Your task to perform on an android device: Open battery settings Image 0: 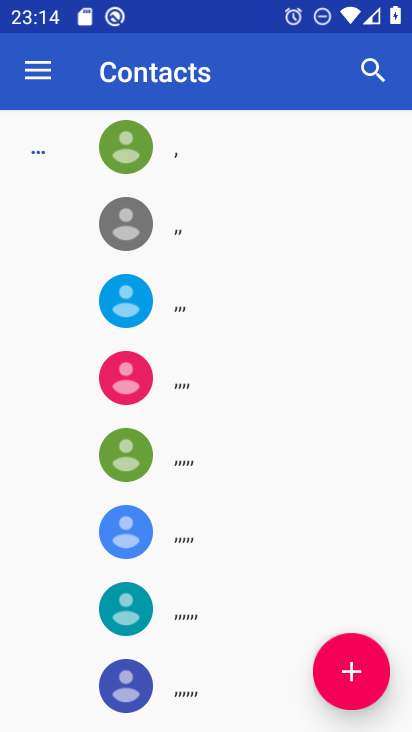
Step 0: press home button
Your task to perform on an android device: Open battery settings Image 1: 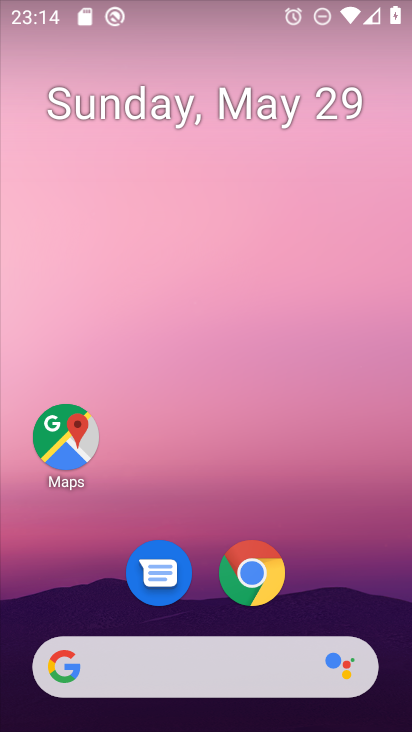
Step 1: drag from (247, 500) to (266, 8)
Your task to perform on an android device: Open battery settings Image 2: 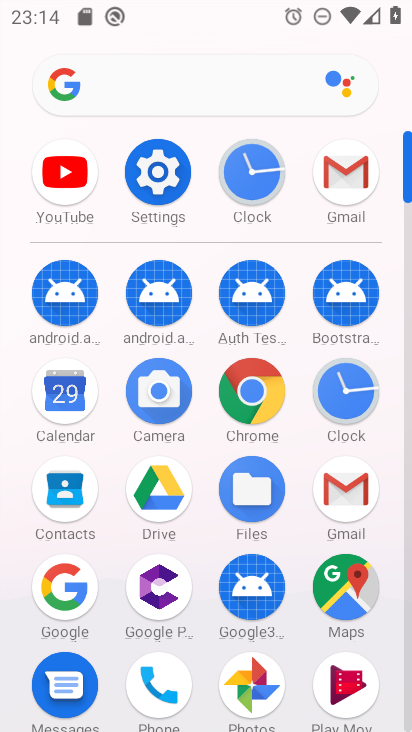
Step 2: click (164, 177)
Your task to perform on an android device: Open battery settings Image 3: 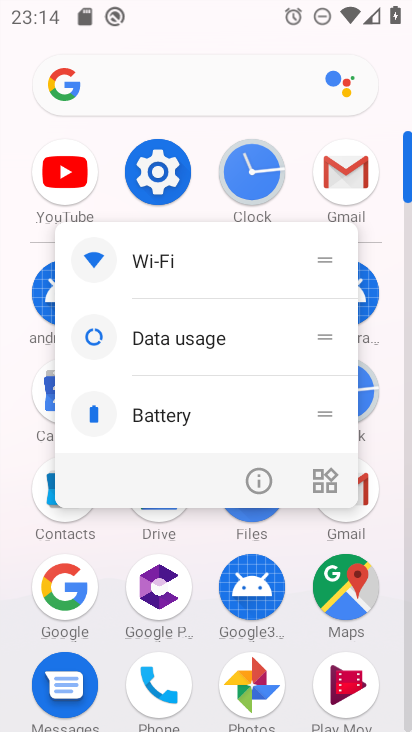
Step 3: click (164, 175)
Your task to perform on an android device: Open battery settings Image 4: 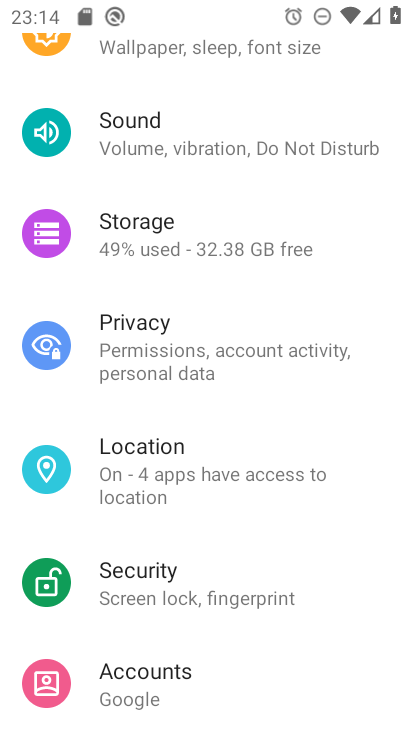
Step 4: drag from (218, 297) to (221, 624)
Your task to perform on an android device: Open battery settings Image 5: 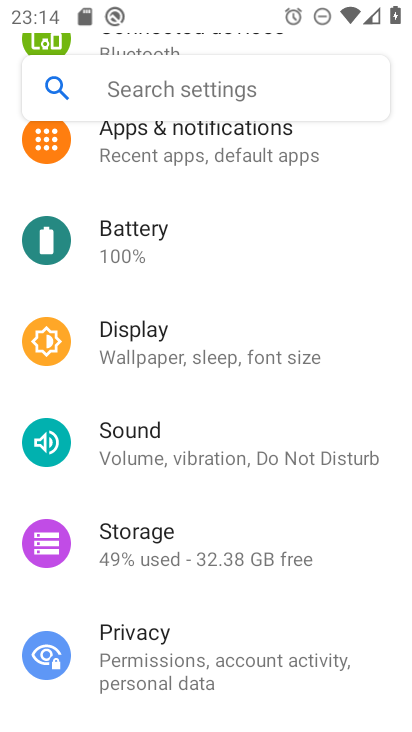
Step 5: click (207, 234)
Your task to perform on an android device: Open battery settings Image 6: 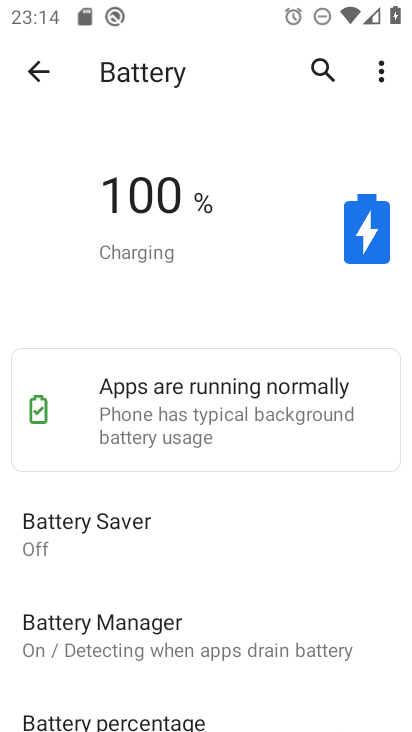
Step 6: task complete